Your task to perform on an android device: turn off location Image 0: 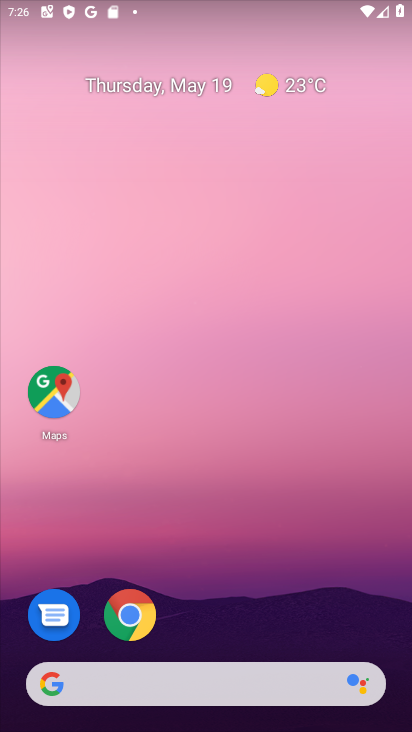
Step 0: drag from (399, 638) to (307, 41)
Your task to perform on an android device: turn off location Image 1: 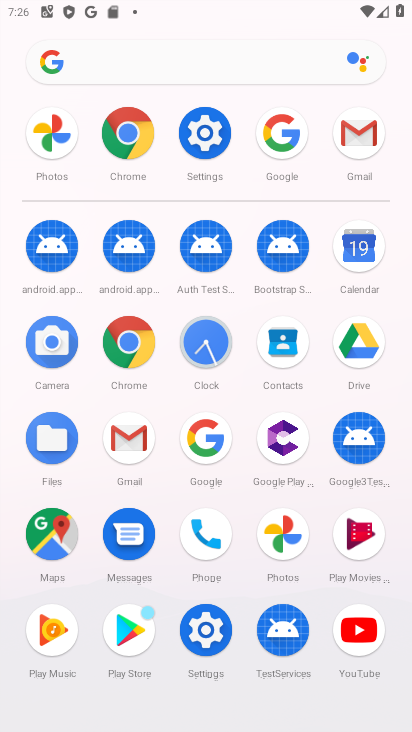
Step 1: click (211, 633)
Your task to perform on an android device: turn off location Image 2: 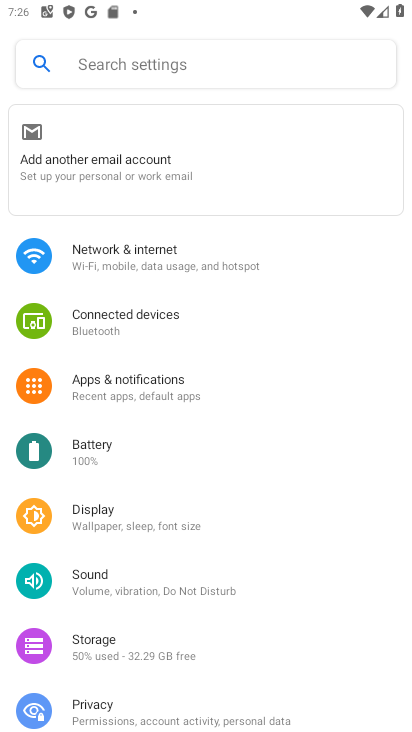
Step 2: drag from (88, 688) to (128, 205)
Your task to perform on an android device: turn off location Image 3: 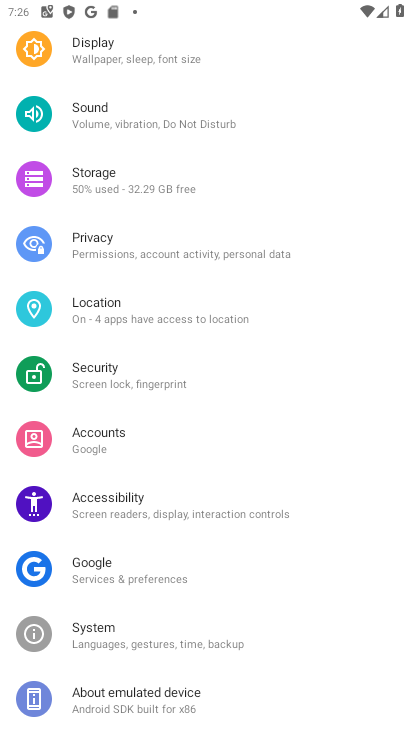
Step 3: click (109, 299)
Your task to perform on an android device: turn off location Image 4: 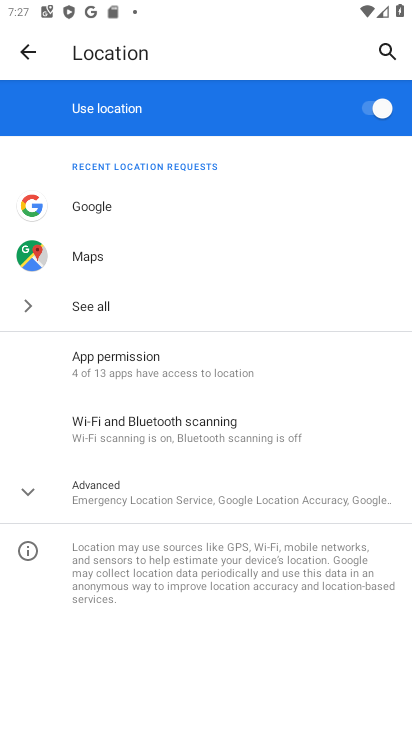
Step 4: click (363, 104)
Your task to perform on an android device: turn off location Image 5: 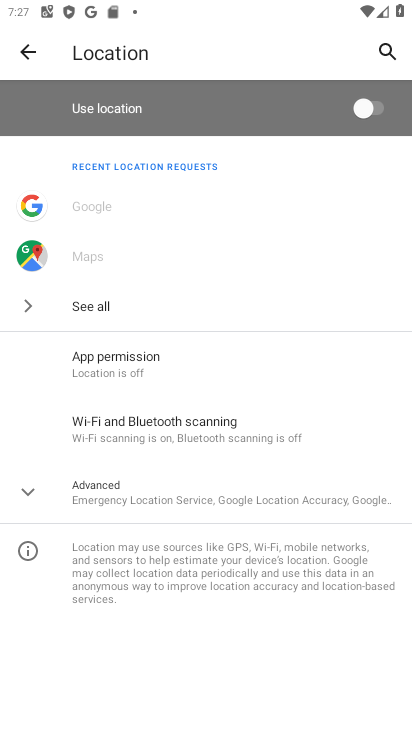
Step 5: task complete